Your task to perform on an android device: turn on sleep mode Image 0: 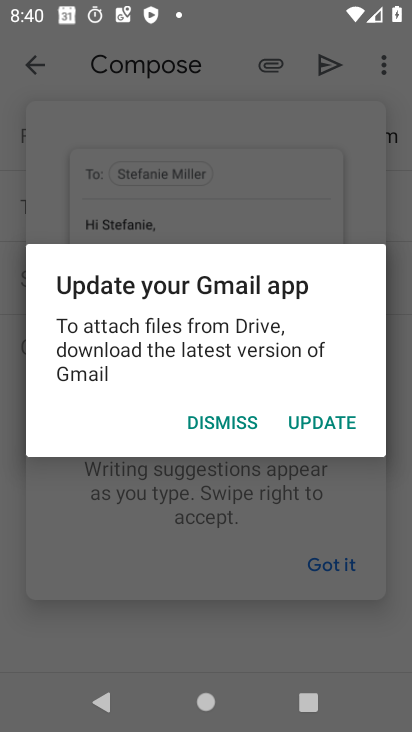
Step 0: press home button
Your task to perform on an android device: turn on sleep mode Image 1: 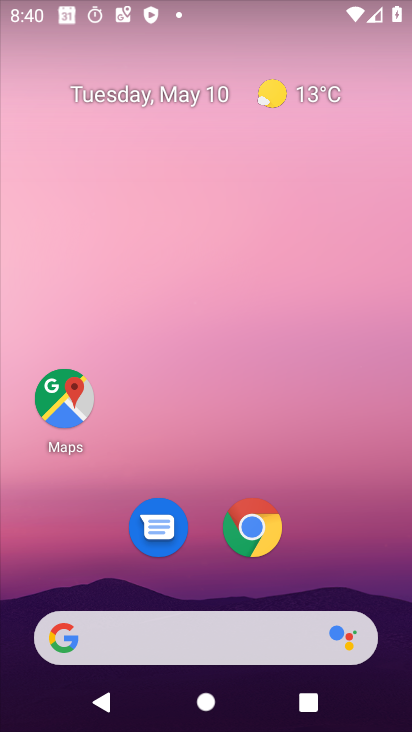
Step 1: drag from (25, 474) to (149, 96)
Your task to perform on an android device: turn on sleep mode Image 2: 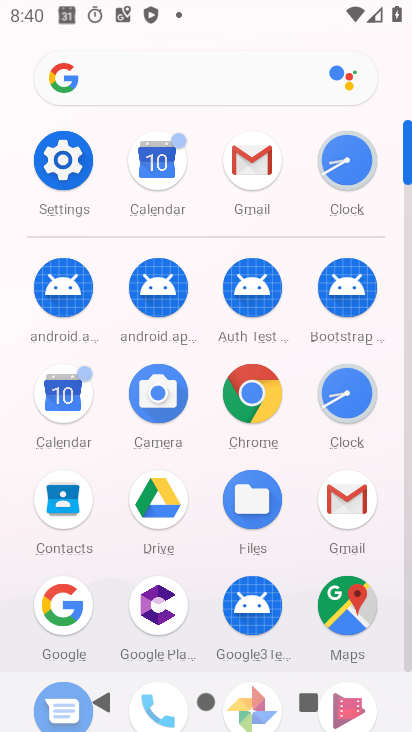
Step 2: click (72, 160)
Your task to perform on an android device: turn on sleep mode Image 3: 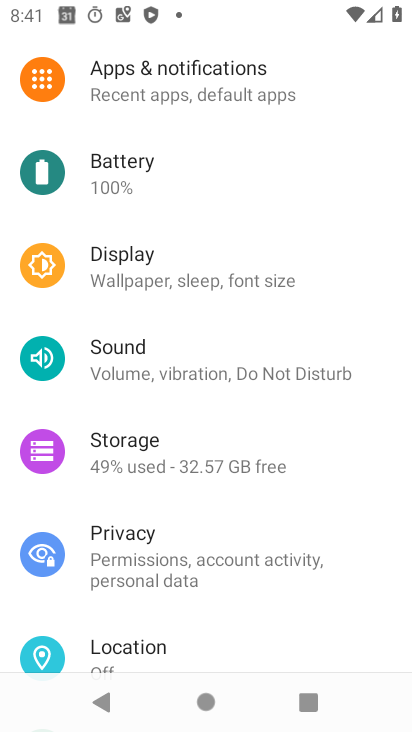
Step 3: click (205, 278)
Your task to perform on an android device: turn on sleep mode Image 4: 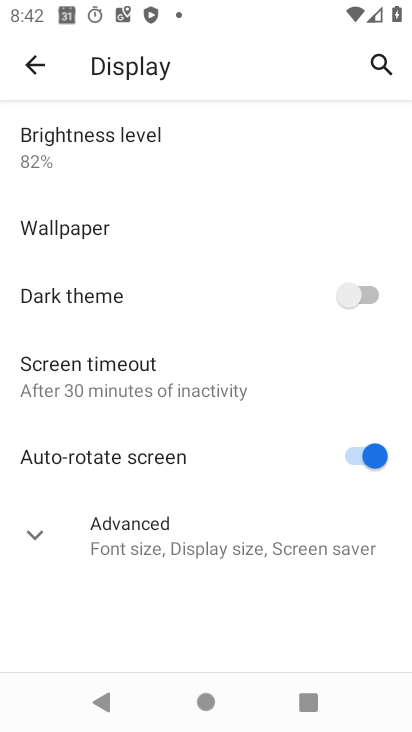
Step 4: task complete